Your task to perform on an android device: toggle sleep mode Image 0: 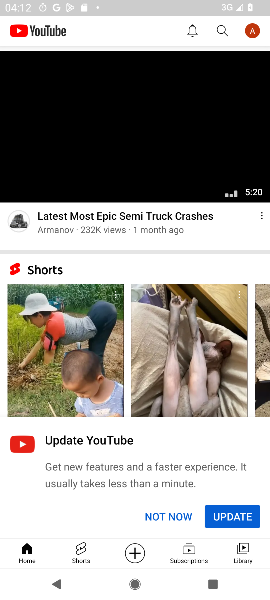
Step 0: press home button
Your task to perform on an android device: toggle sleep mode Image 1: 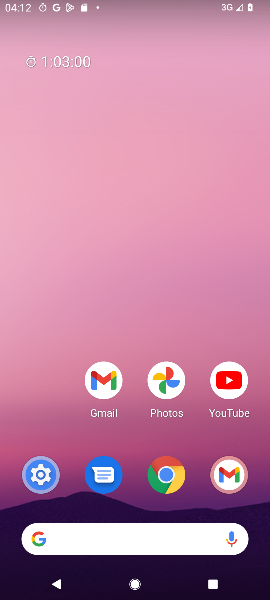
Step 1: drag from (45, 436) to (43, 217)
Your task to perform on an android device: toggle sleep mode Image 2: 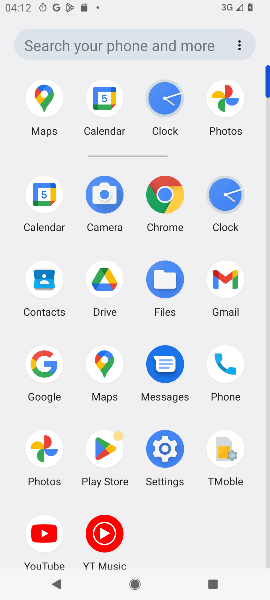
Step 2: click (165, 448)
Your task to perform on an android device: toggle sleep mode Image 3: 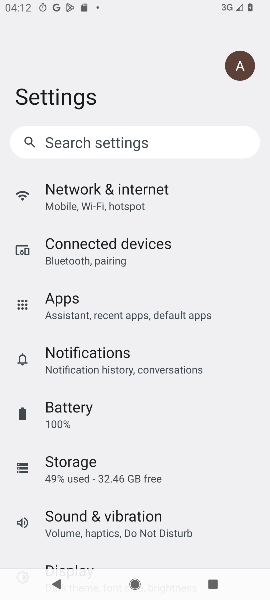
Step 3: drag from (238, 459) to (237, 384)
Your task to perform on an android device: toggle sleep mode Image 4: 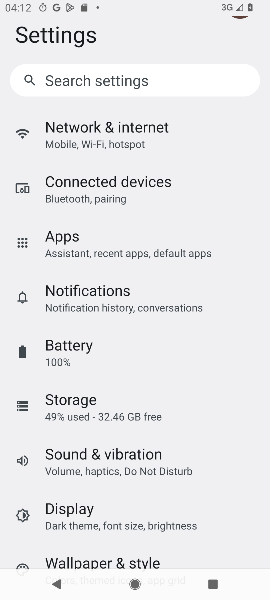
Step 4: drag from (217, 491) to (220, 408)
Your task to perform on an android device: toggle sleep mode Image 5: 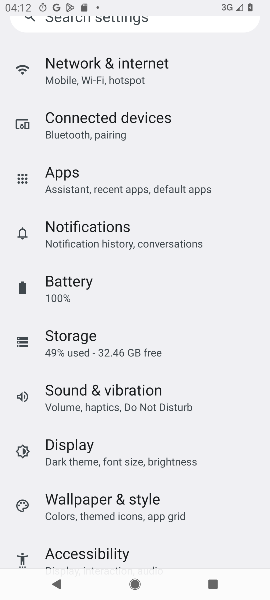
Step 5: drag from (229, 468) to (227, 371)
Your task to perform on an android device: toggle sleep mode Image 6: 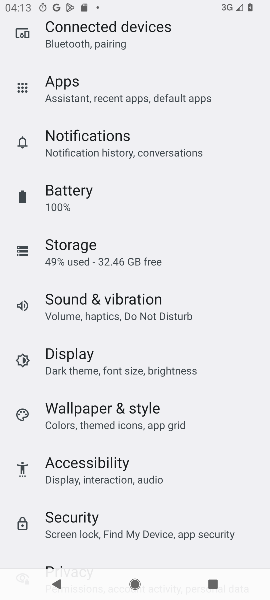
Step 6: drag from (220, 472) to (222, 326)
Your task to perform on an android device: toggle sleep mode Image 7: 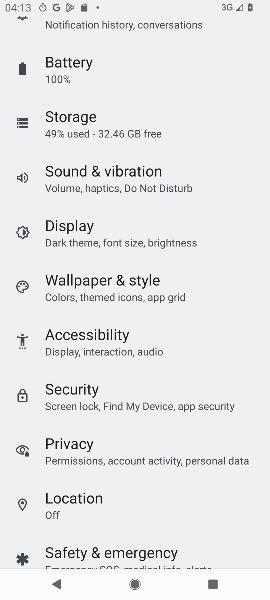
Step 7: click (190, 231)
Your task to perform on an android device: toggle sleep mode Image 8: 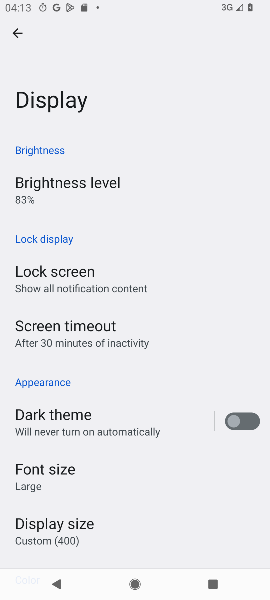
Step 8: task complete